Your task to perform on an android device: turn off location Image 0: 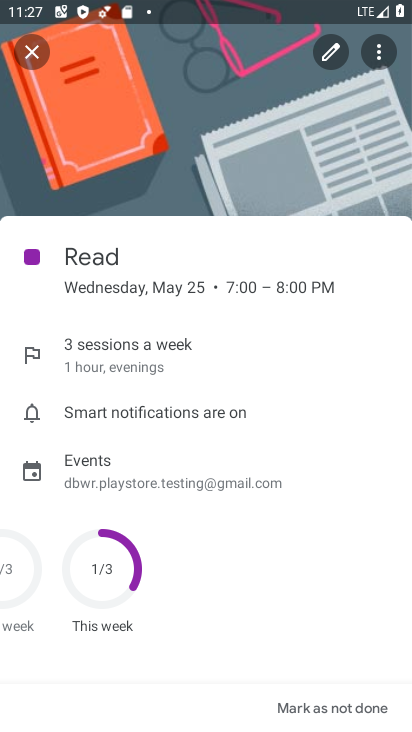
Step 0: press home button
Your task to perform on an android device: turn off location Image 1: 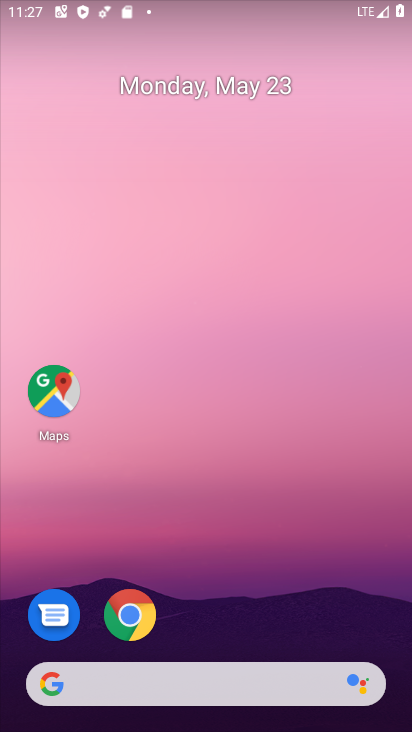
Step 1: drag from (205, 626) to (170, 111)
Your task to perform on an android device: turn off location Image 2: 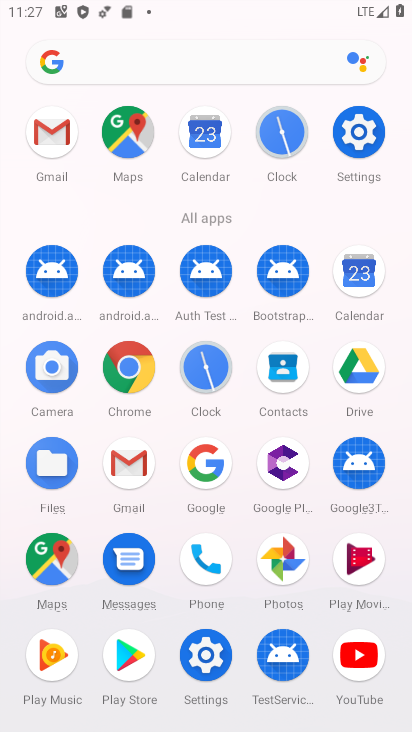
Step 2: click (361, 137)
Your task to perform on an android device: turn off location Image 3: 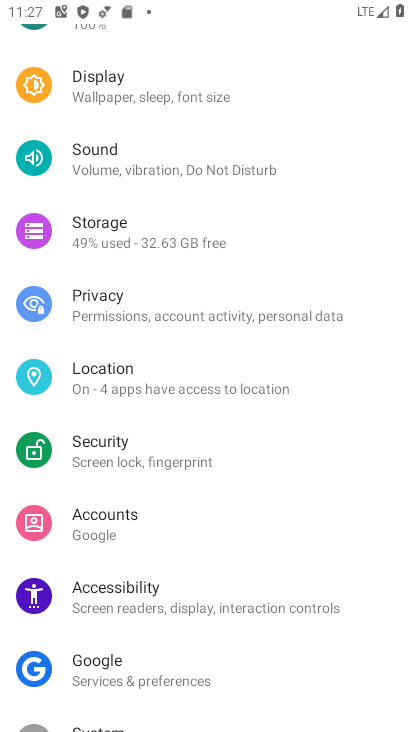
Step 3: click (136, 376)
Your task to perform on an android device: turn off location Image 4: 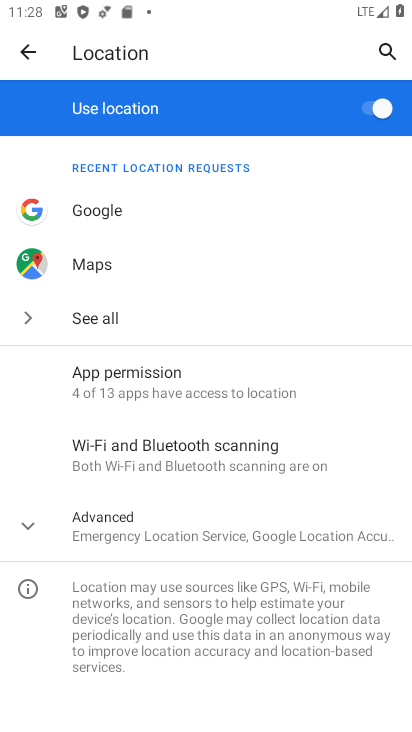
Step 4: click (369, 112)
Your task to perform on an android device: turn off location Image 5: 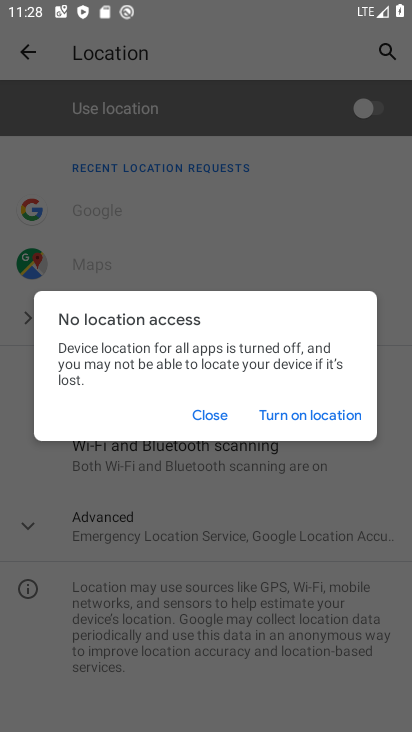
Step 5: task complete